Your task to perform on an android device: Search for Italian restaurants on Maps Image 0: 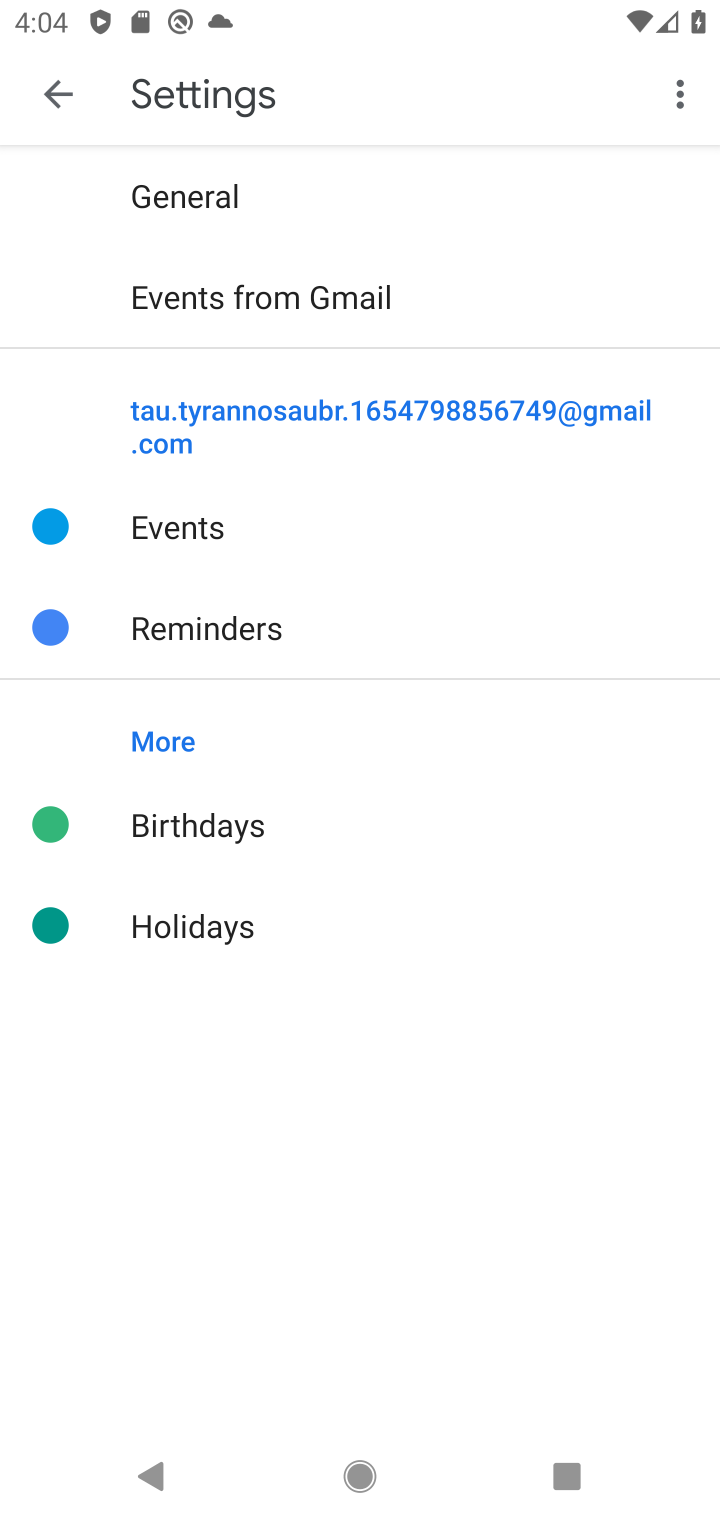
Step 0: press home button
Your task to perform on an android device: Search for Italian restaurants on Maps Image 1: 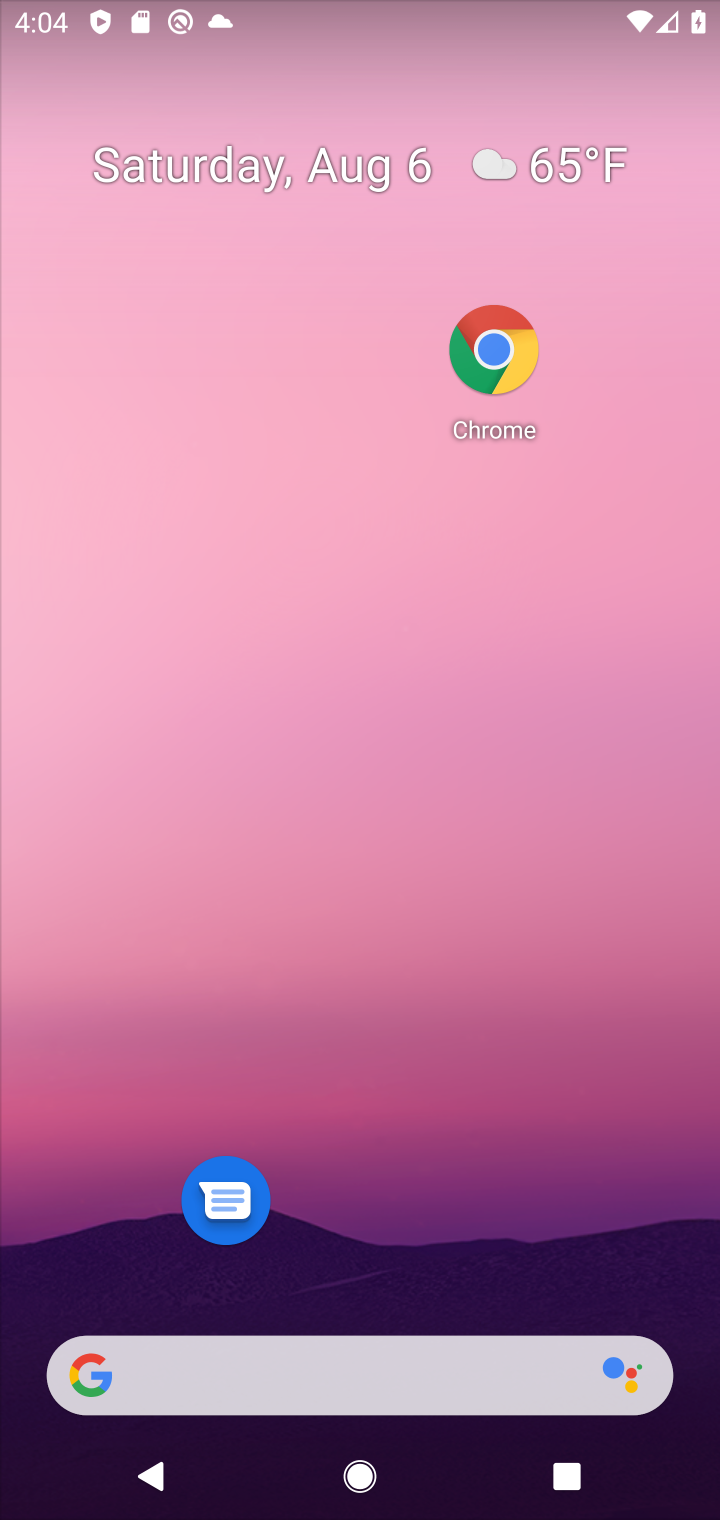
Step 1: drag from (360, 1334) to (318, 554)
Your task to perform on an android device: Search for Italian restaurants on Maps Image 2: 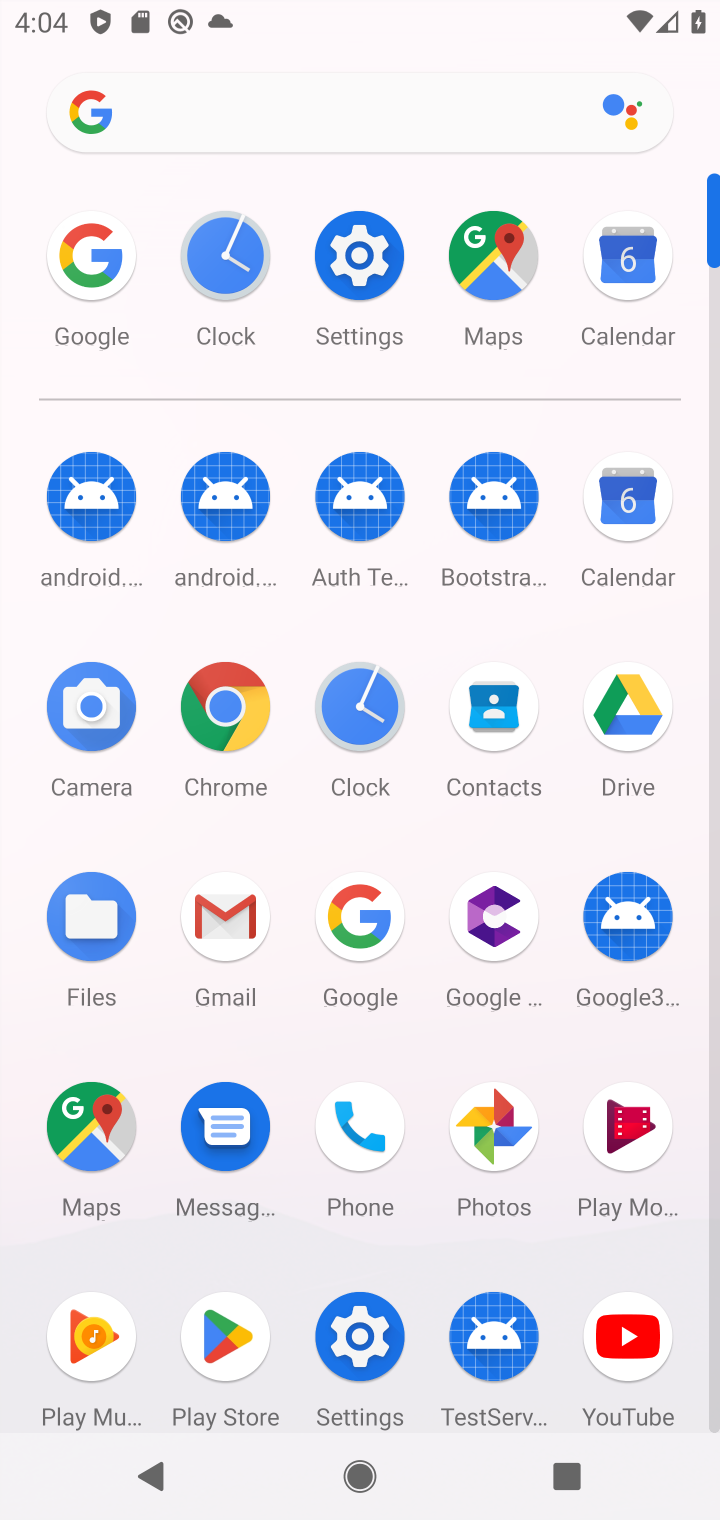
Step 2: click (490, 285)
Your task to perform on an android device: Search for Italian restaurants on Maps Image 3: 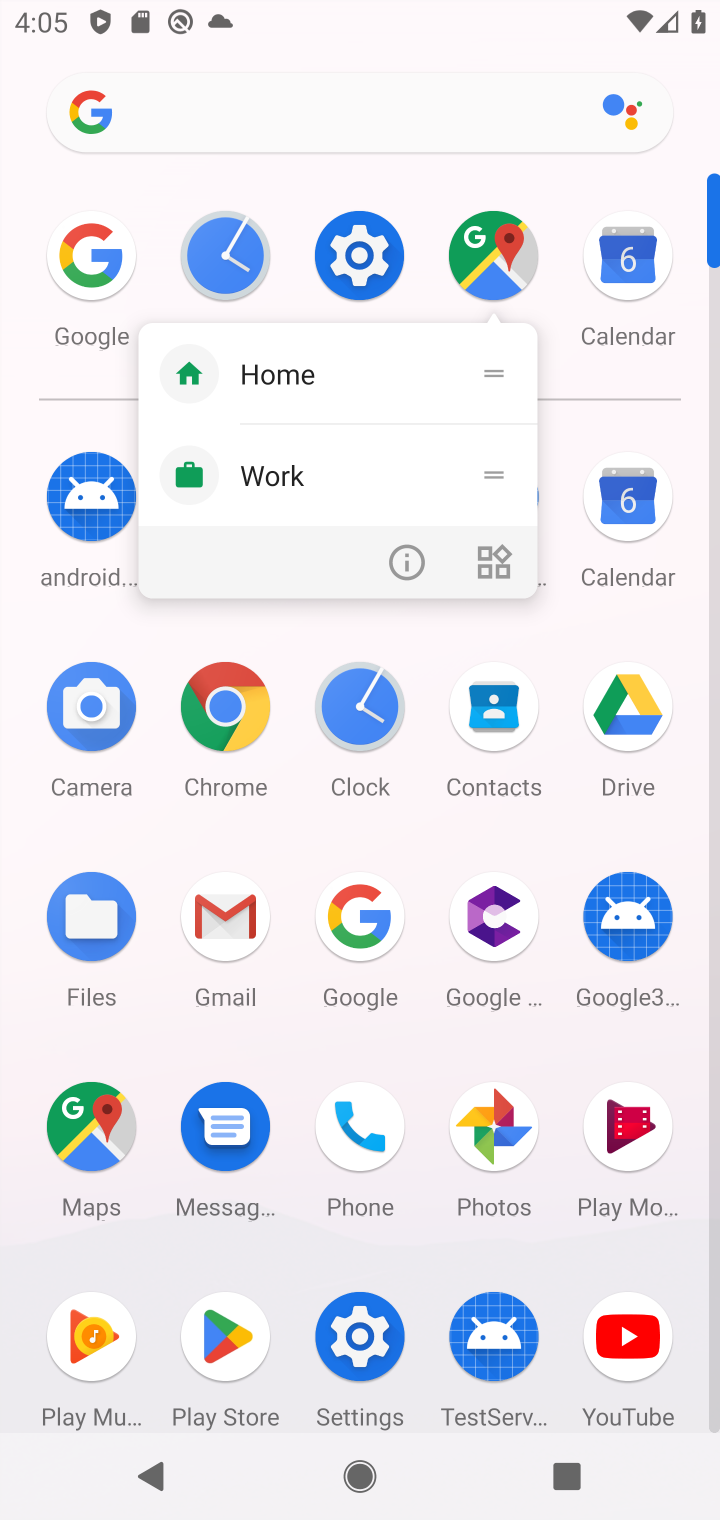
Step 3: click (497, 260)
Your task to perform on an android device: Search for Italian restaurants on Maps Image 4: 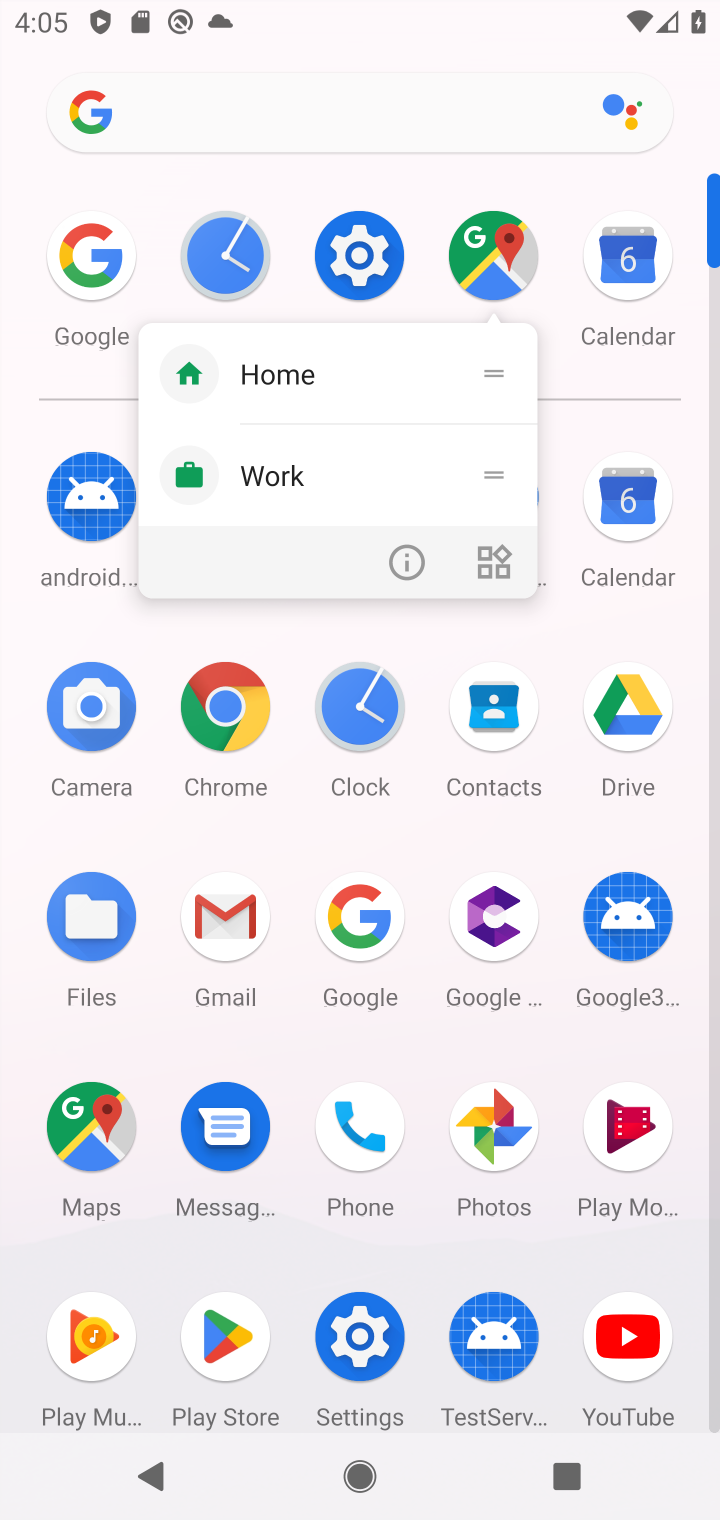
Step 4: click (476, 270)
Your task to perform on an android device: Search for Italian restaurants on Maps Image 5: 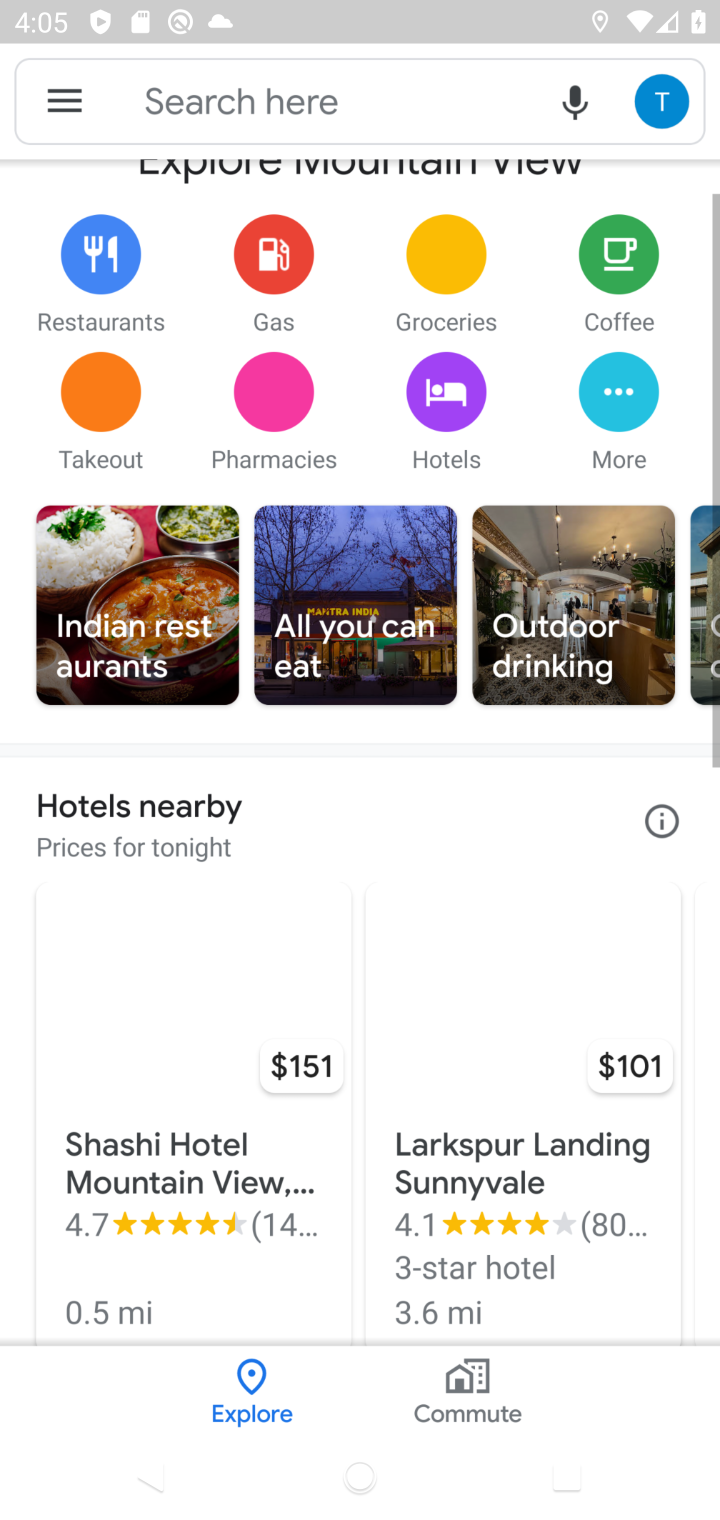
Step 5: click (234, 98)
Your task to perform on an android device: Search for Italian restaurants on Maps Image 6: 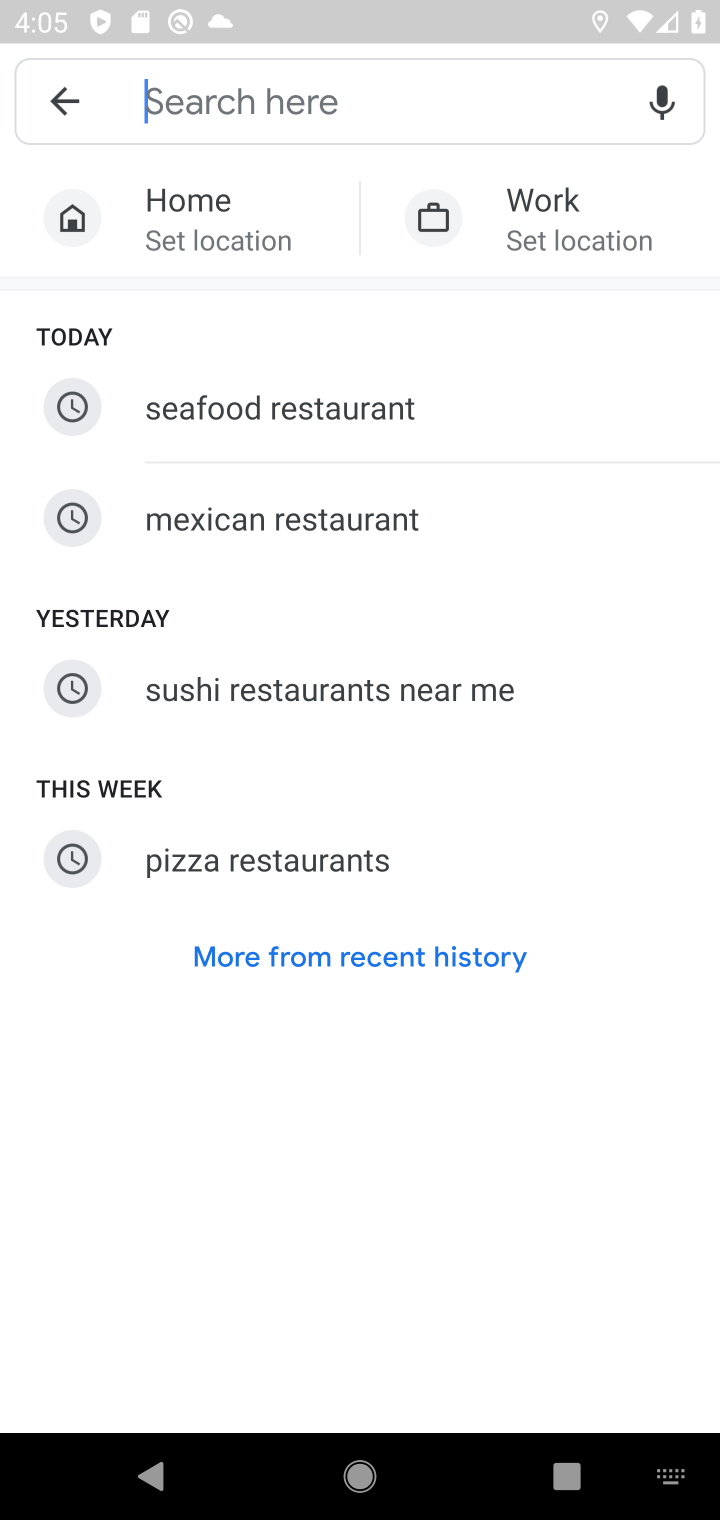
Step 6: click (309, 962)
Your task to perform on an android device: Search for Italian restaurants on Maps Image 7: 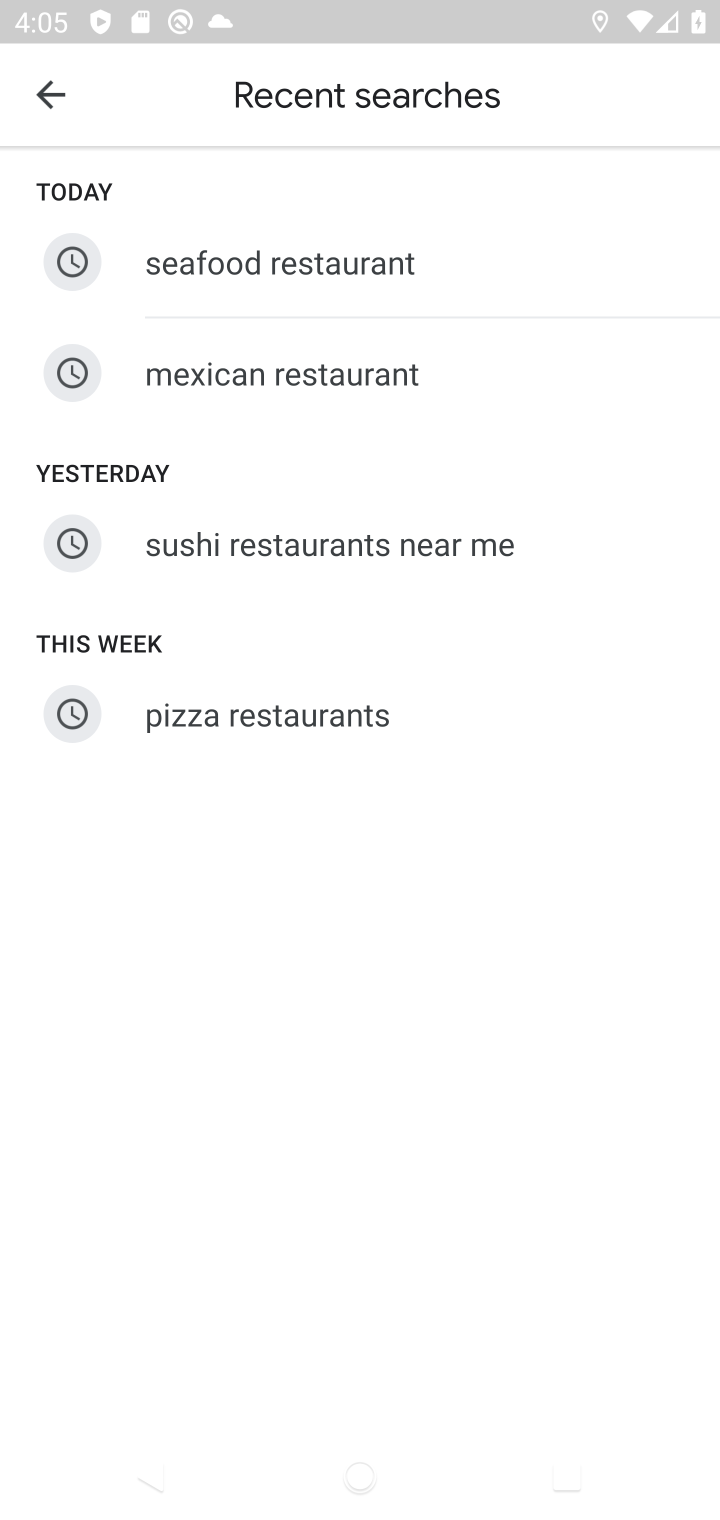
Step 7: click (39, 94)
Your task to perform on an android device: Search for Italian restaurants on Maps Image 8: 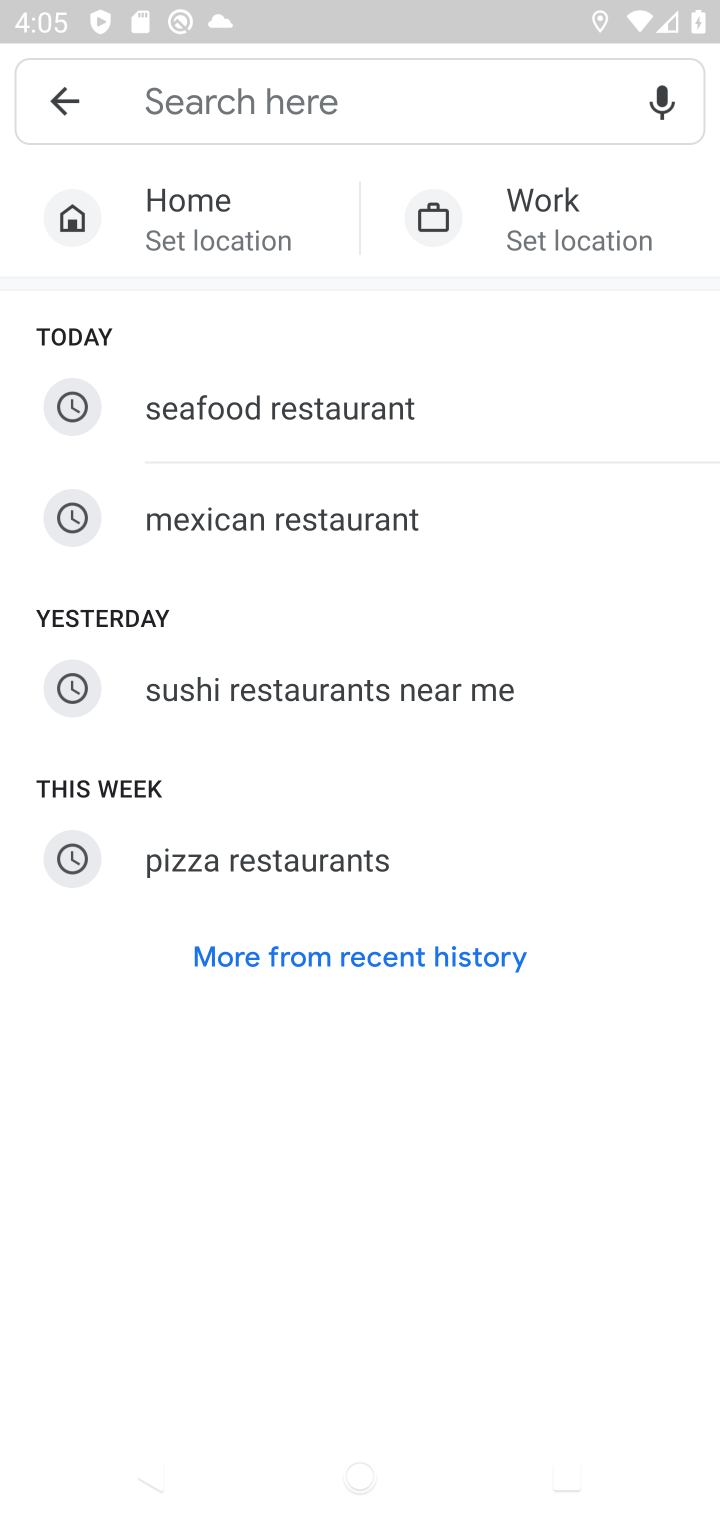
Step 8: click (314, 119)
Your task to perform on an android device: Search for Italian restaurants on Maps Image 9: 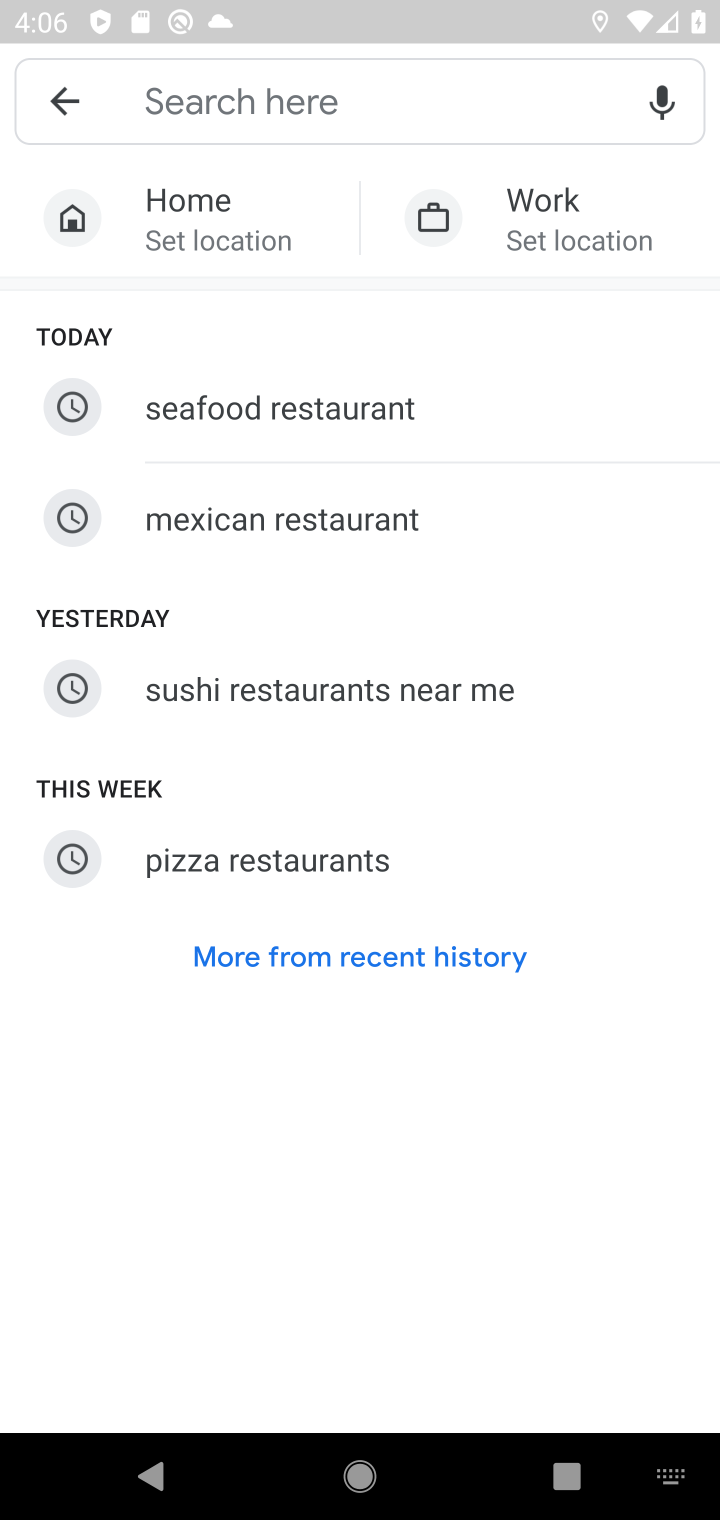
Step 9: type "Italian restaurants"
Your task to perform on an android device: Search for Italian restaurants on Maps Image 10: 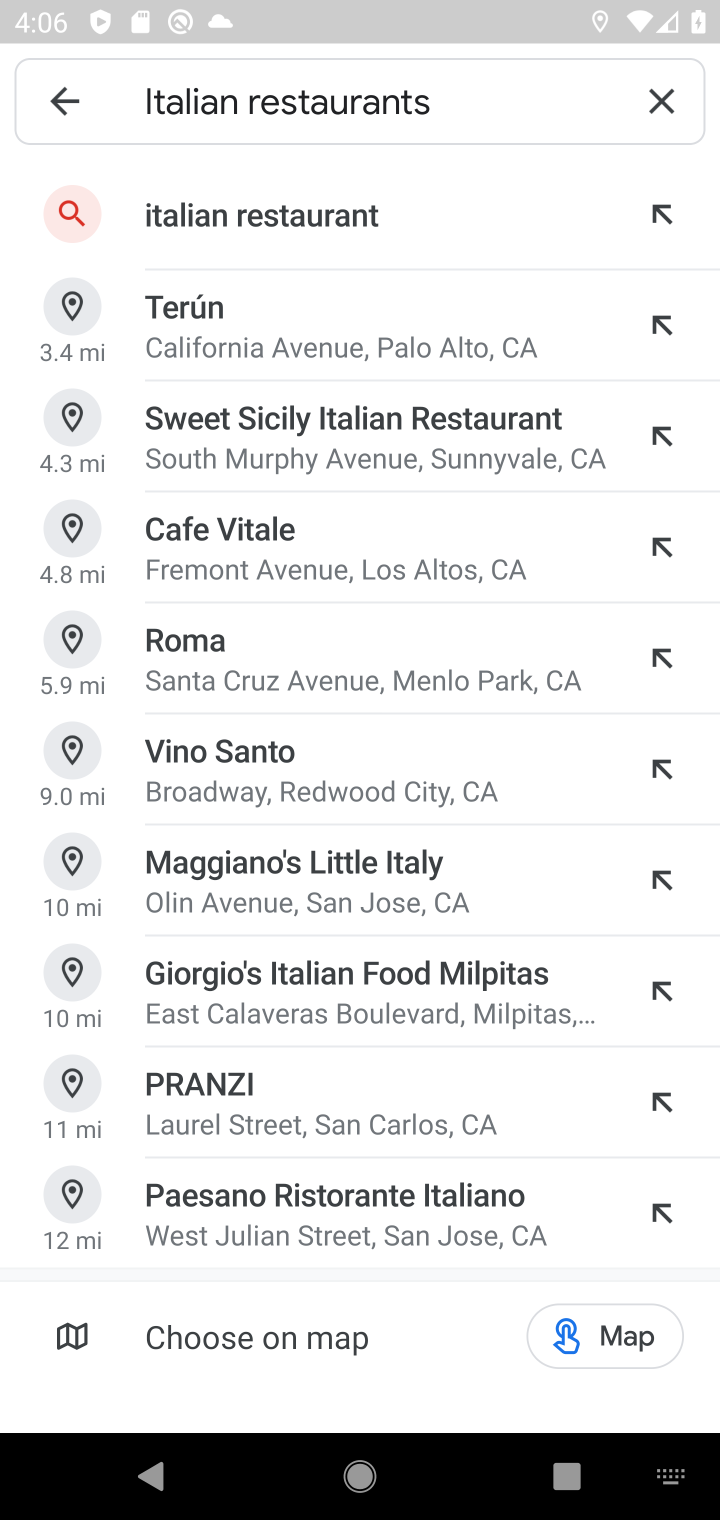
Step 10: click (271, 227)
Your task to perform on an android device: Search for Italian restaurants on Maps Image 11: 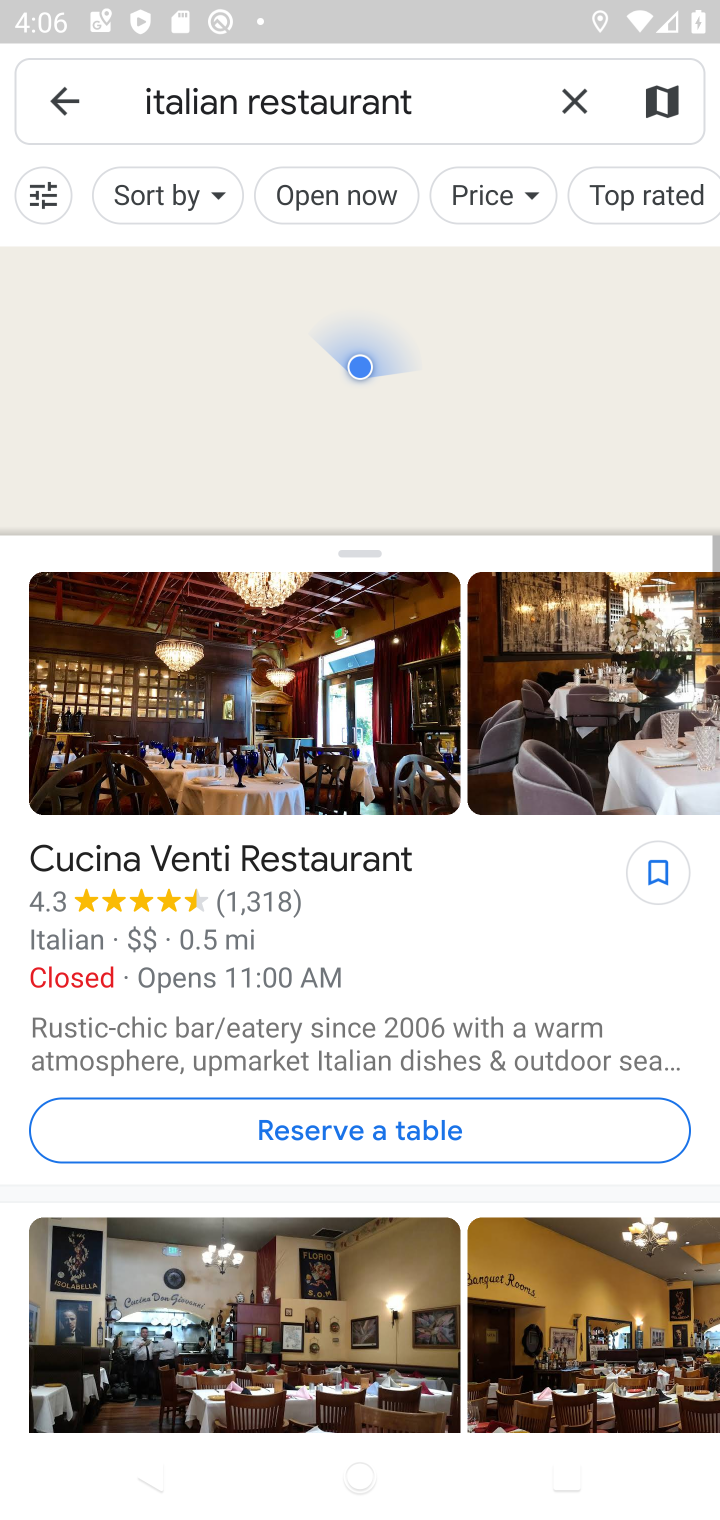
Step 11: task complete